Your task to perform on an android device: open a new tab in the chrome app Image 0: 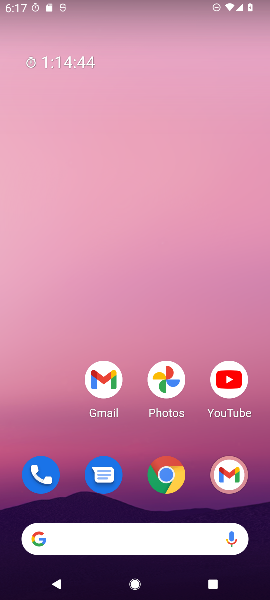
Step 0: press home button
Your task to perform on an android device: open a new tab in the chrome app Image 1: 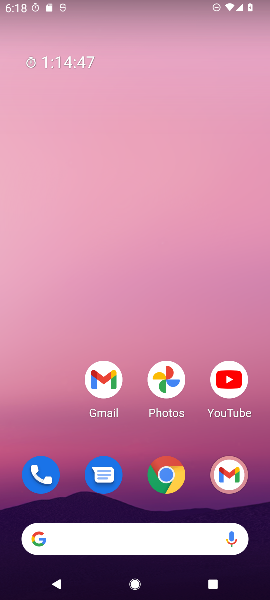
Step 1: drag from (57, 432) to (54, 253)
Your task to perform on an android device: open a new tab in the chrome app Image 2: 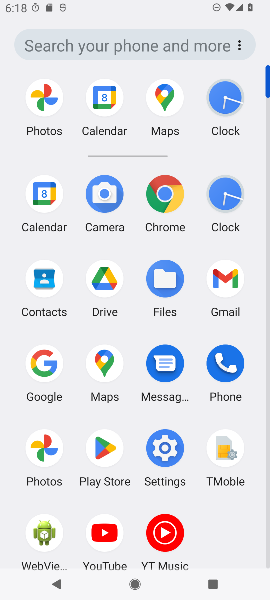
Step 2: click (169, 195)
Your task to perform on an android device: open a new tab in the chrome app Image 3: 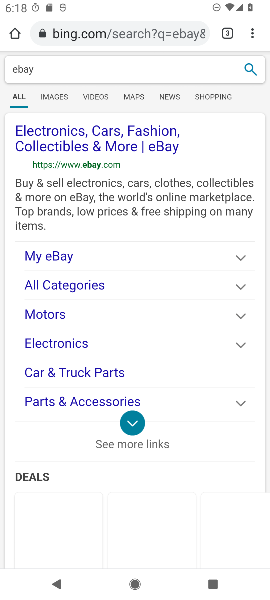
Step 3: click (252, 36)
Your task to perform on an android device: open a new tab in the chrome app Image 4: 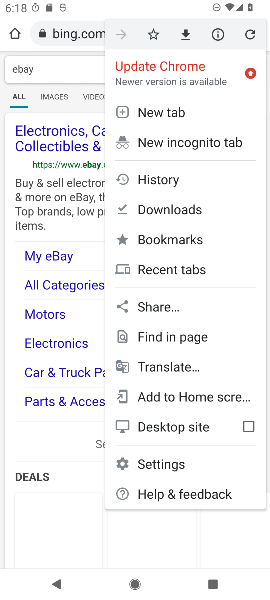
Step 4: click (171, 110)
Your task to perform on an android device: open a new tab in the chrome app Image 5: 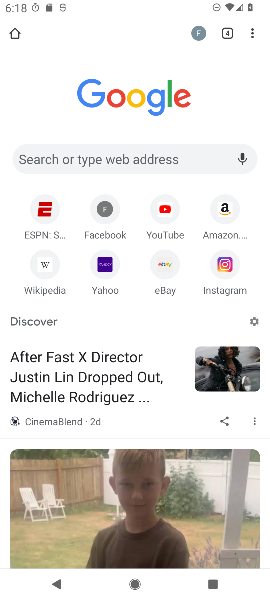
Step 5: task complete